Your task to perform on an android device: Open location settings Image 0: 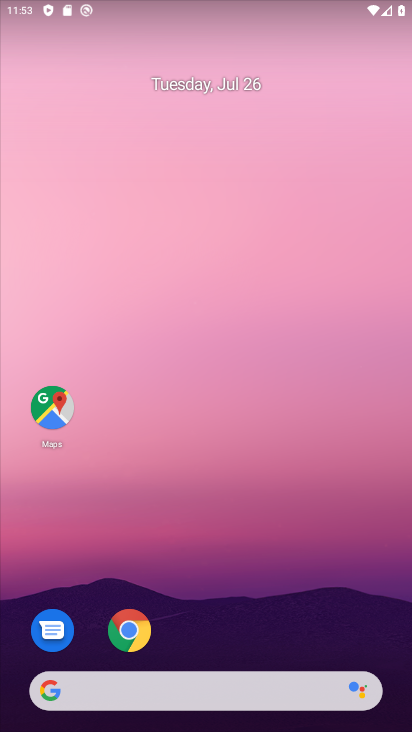
Step 0: drag from (257, 616) to (189, 188)
Your task to perform on an android device: Open location settings Image 1: 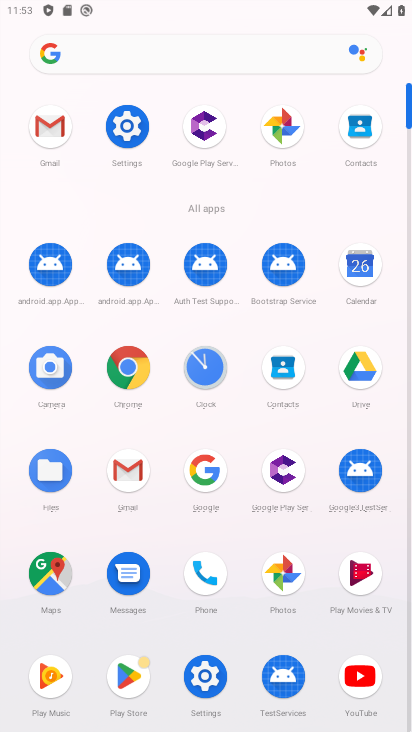
Step 1: click (123, 130)
Your task to perform on an android device: Open location settings Image 2: 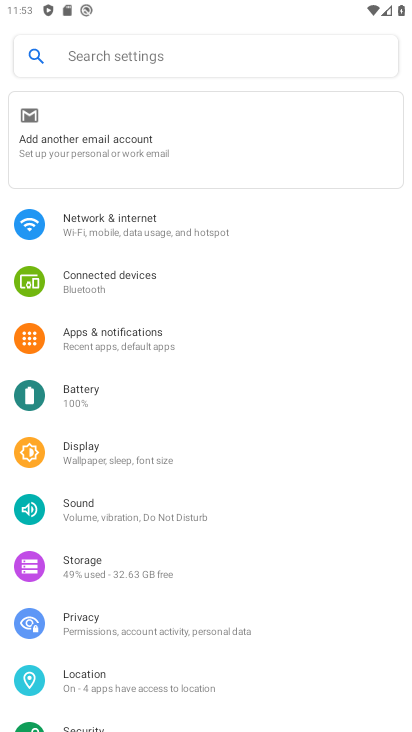
Step 2: click (116, 675)
Your task to perform on an android device: Open location settings Image 3: 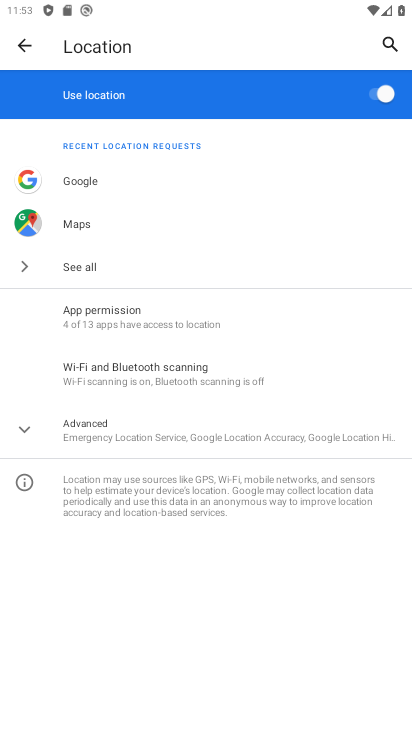
Step 3: task complete